Your task to perform on an android device: toggle notifications settings in the gmail app Image 0: 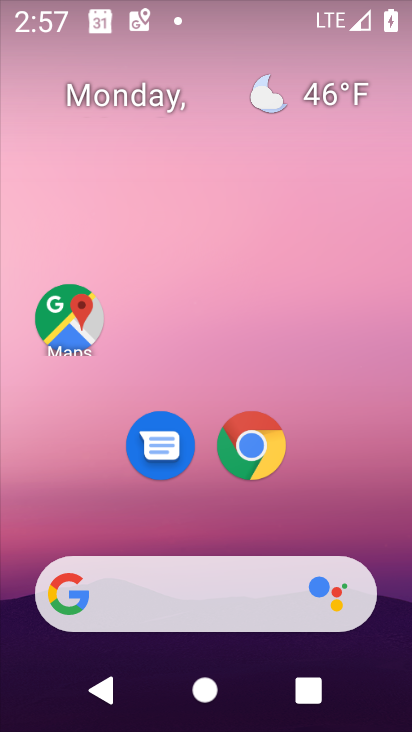
Step 0: drag from (321, 490) to (326, 136)
Your task to perform on an android device: toggle notifications settings in the gmail app Image 1: 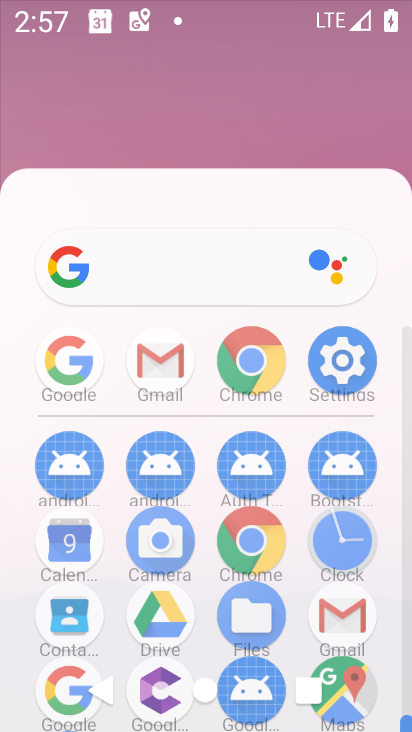
Step 1: click (326, 136)
Your task to perform on an android device: toggle notifications settings in the gmail app Image 2: 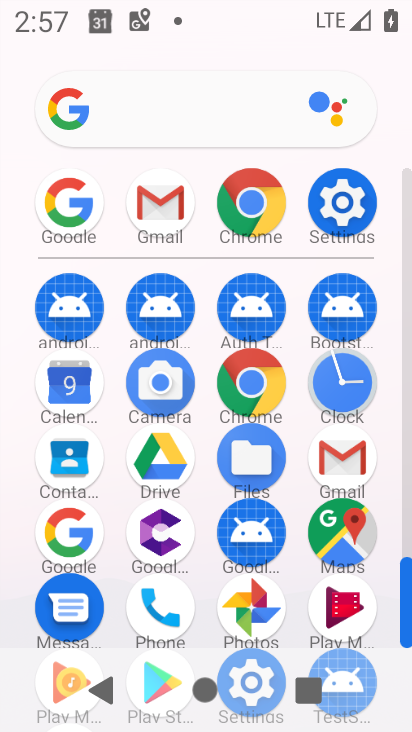
Step 2: click (351, 465)
Your task to perform on an android device: toggle notifications settings in the gmail app Image 3: 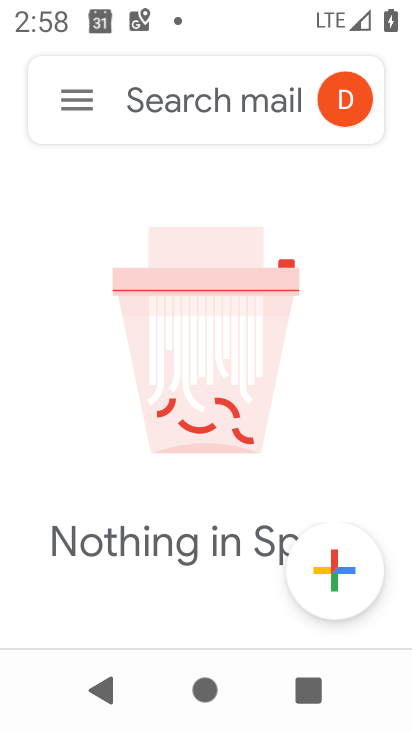
Step 3: click (83, 94)
Your task to perform on an android device: toggle notifications settings in the gmail app Image 4: 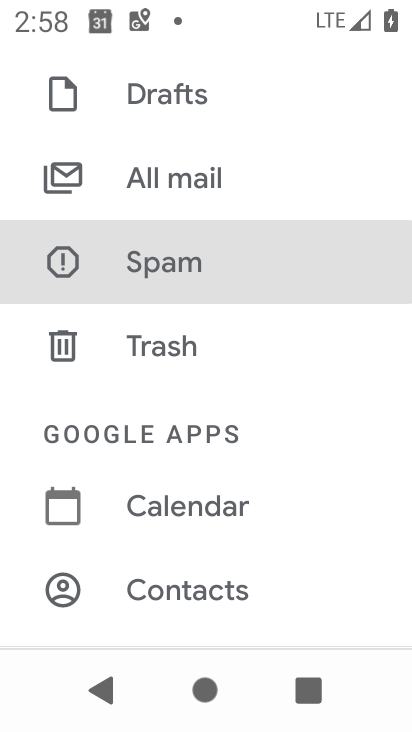
Step 4: drag from (199, 567) to (232, 112)
Your task to perform on an android device: toggle notifications settings in the gmail app Image 5: 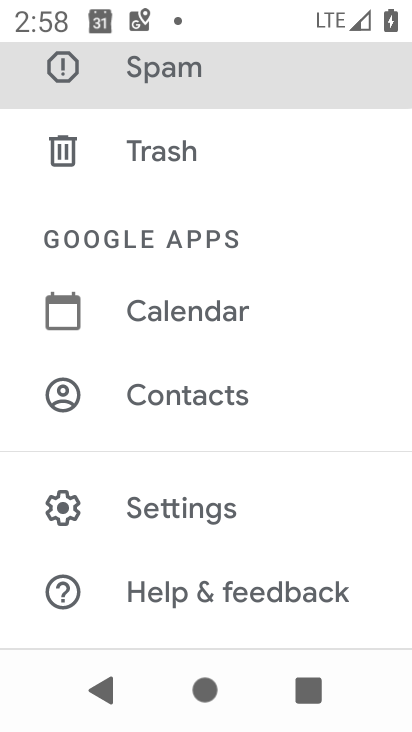
Step 5: click (189, 507)
Your task to perform on an android device: toggle notifications settings in the gmail app Image 6: 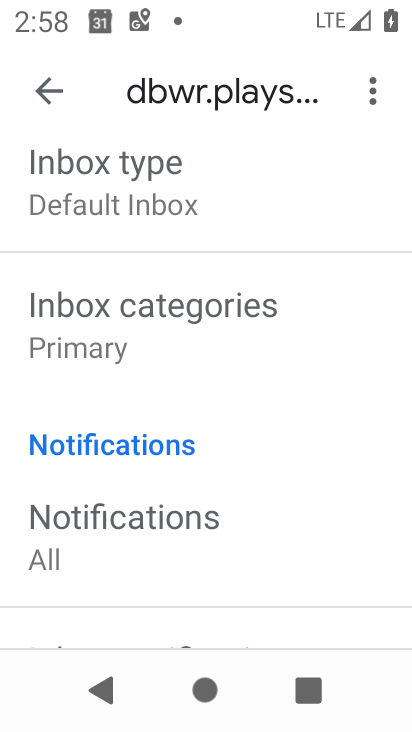
Step 6: drag from (194, 550) to (213, 260)
Your task to perform on an android device: toggle notifications settings in the gmail app Image 7: 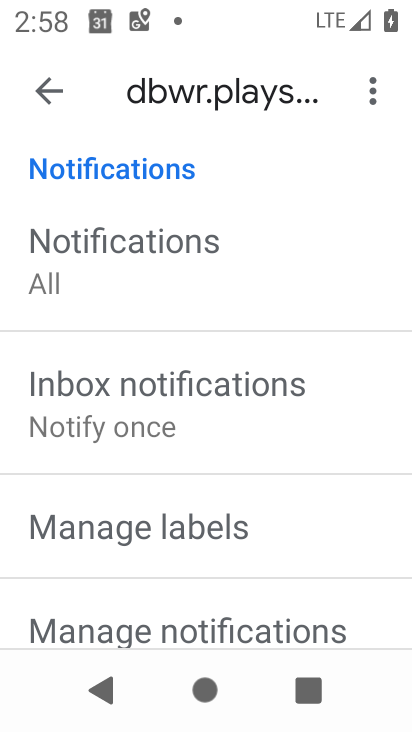
Step 7: click (214, 275)
Your task to perform on an android device: toggle notifications settings in the gmail app Image 8: 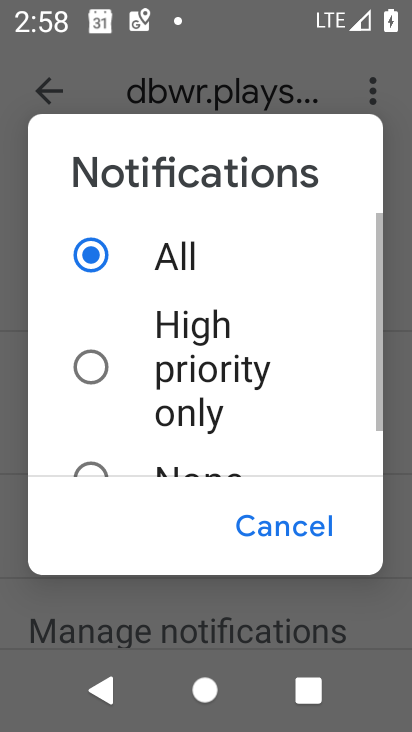
Step 8: click (228, 405)
Your task to perform on an android device: toggle notifications settings in the gmail app Image 9: 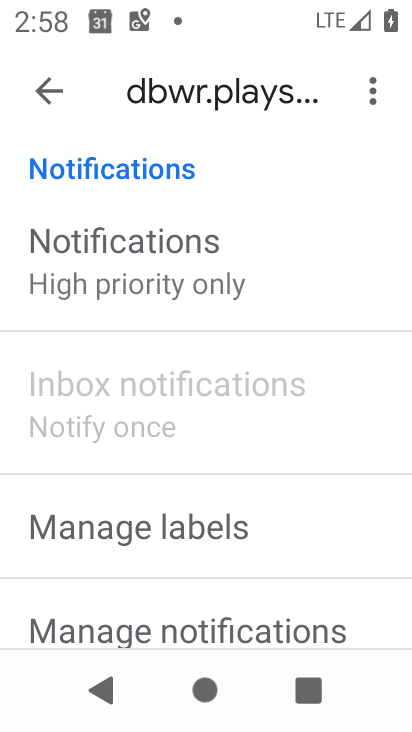
Step 9: task complete